Your task to perform on an android device: Open Android settings Image 0: 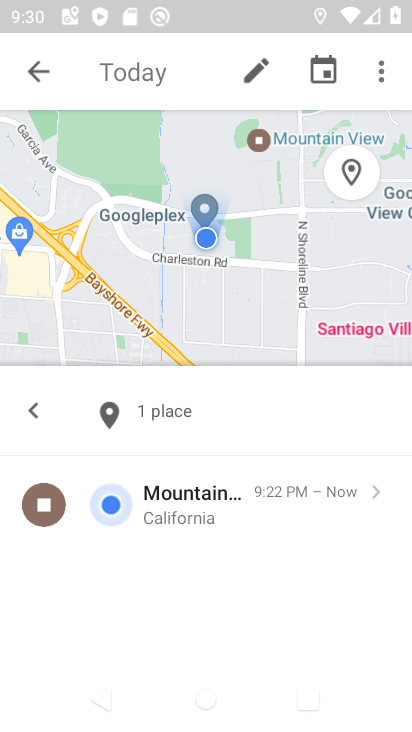
Step 0: press home button
Your task to perform on an android device: Open Android settings Image 1: 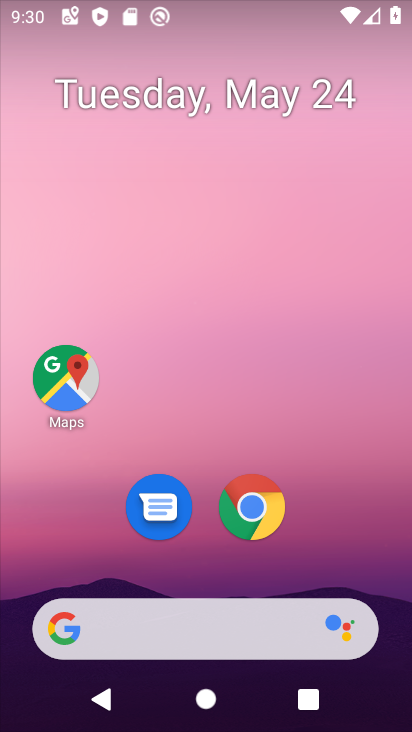
Step 1: drag from (47, 574) to (172, 192)
Your task to perform on an android device: Open Android settings Image 2: 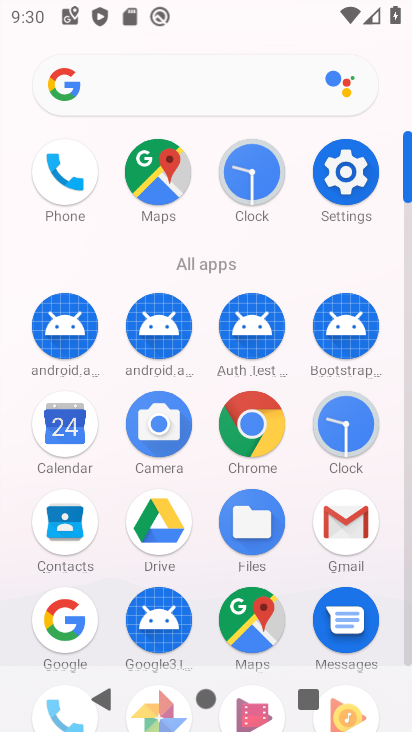
Step 2: drag from (182, 695) to (274, 313)
Your task to perform on an android device: Open Android settings Image 3: 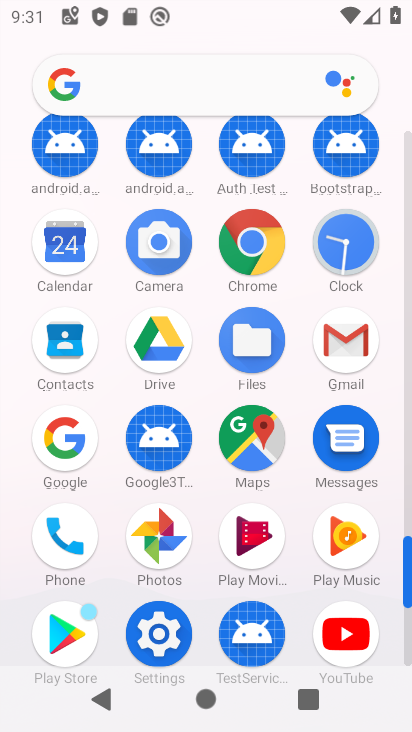
Step 3: click (158, 640)
Your task to perform on an android device: Open Android settings Image 4: 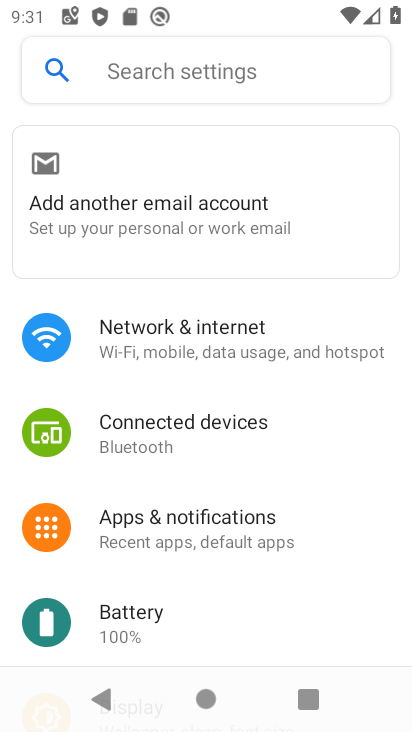
Step 4: task complete